Your task to perform on an android device: Open the web browser Image 0: 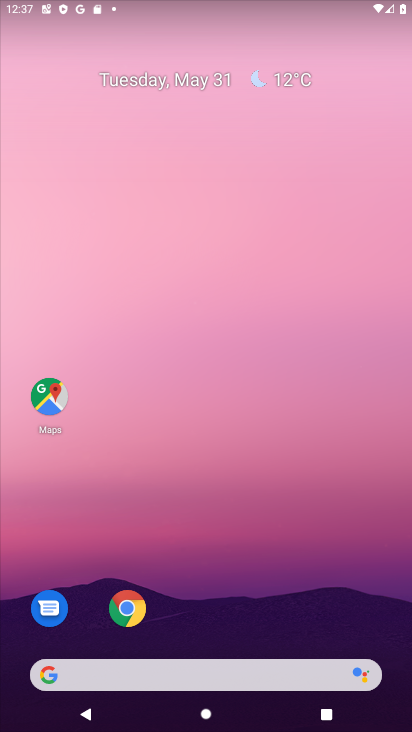
Step 0: drag from (258, 580) to (292, 75)
Your task to perform on an android device: Open the web browser Image 1: 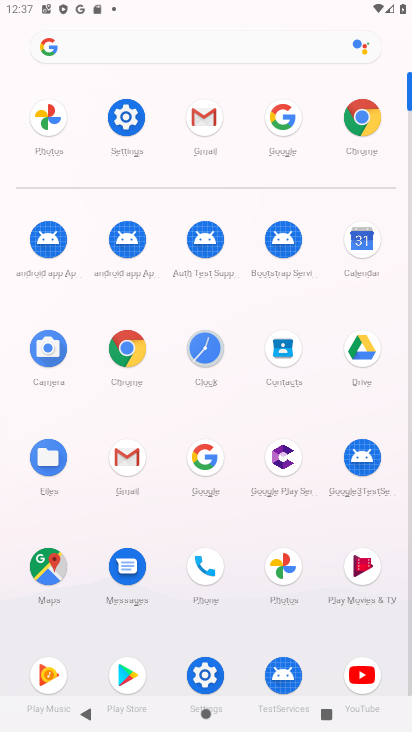
Step 1: click (207, 454)
Your task to perform on an android device: Open the web browser Image 2: 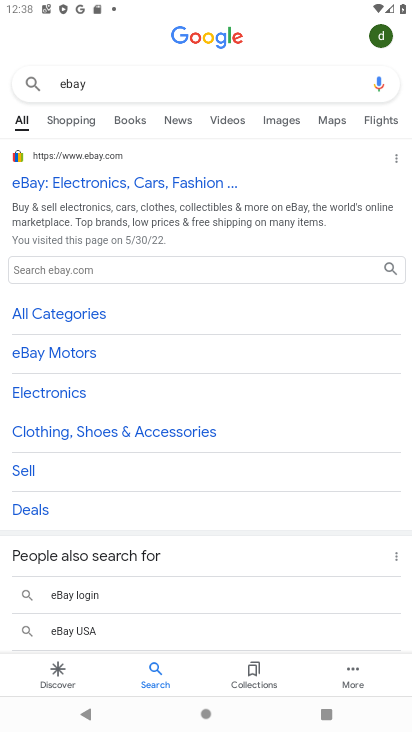
Step 2: task complete